Your task to perform on an android device: find snoozed emails in the gmail app Image 0: 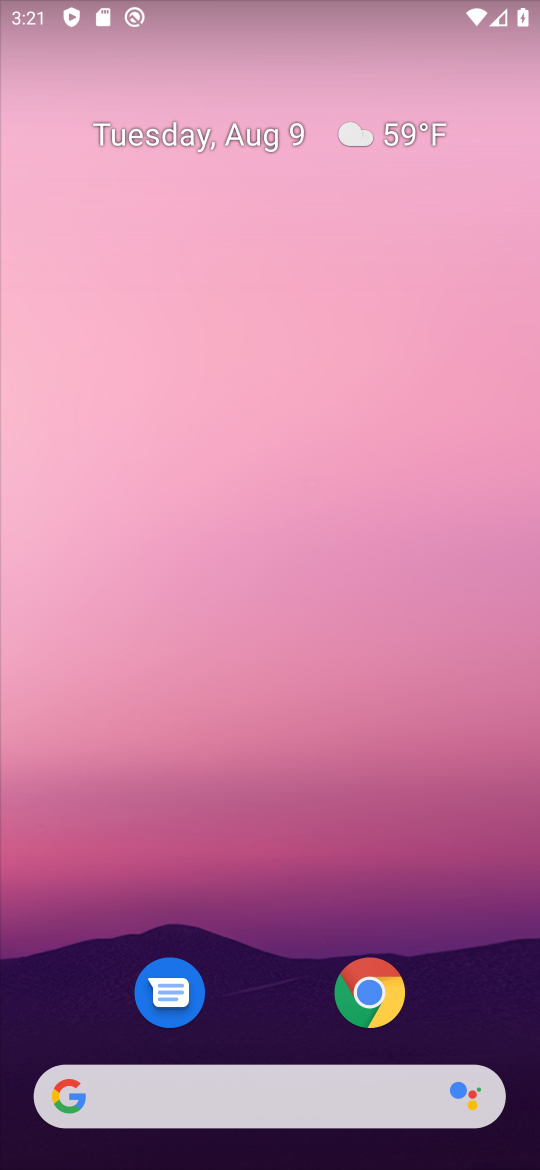
Step 0: drag from (318, 801) to (394, 398)
Your task to perform on an android device: find snoozed emails in the gmail app Image 1: 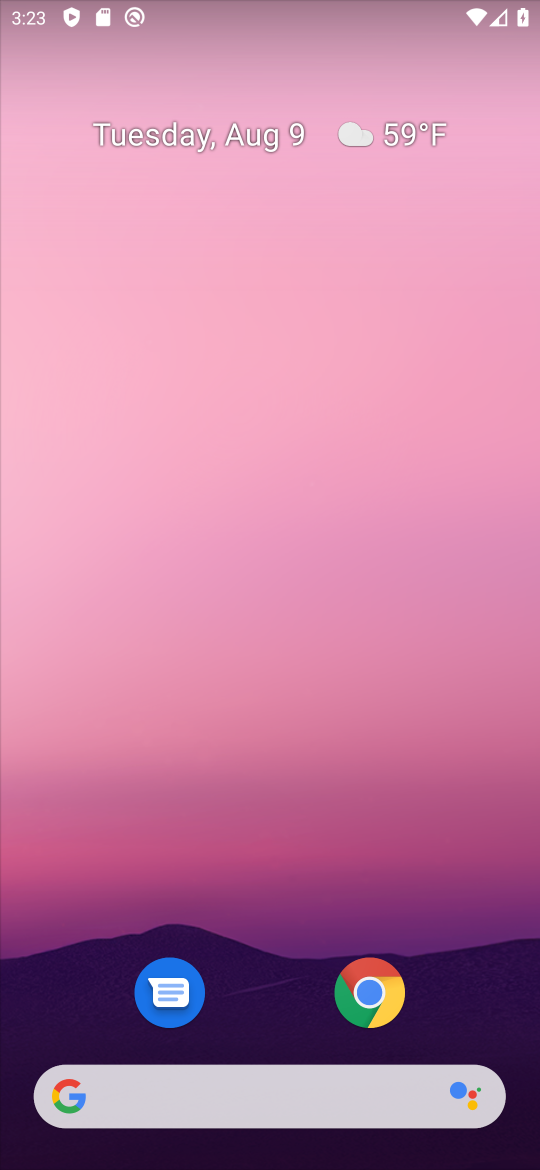
Step 1: drag from (211, 1047) to (358, 171)
Your task to perform on an android device: find snoozed emails in the gmail app Image 2: 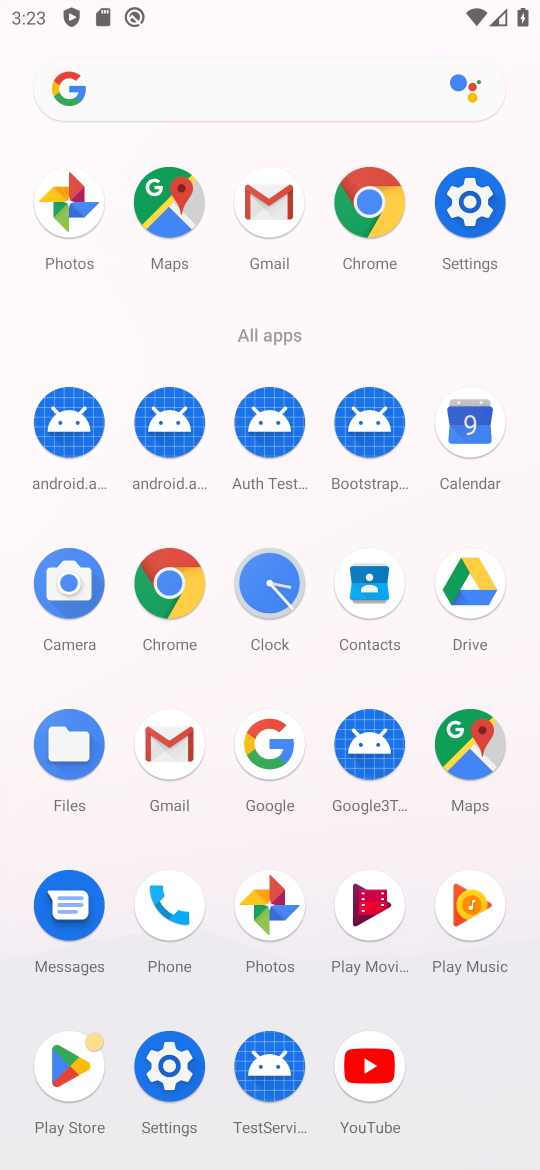
Step 2: click (263, 204)
Your task to perform on an android device: find snoozed emails in the gmail app Image 3: 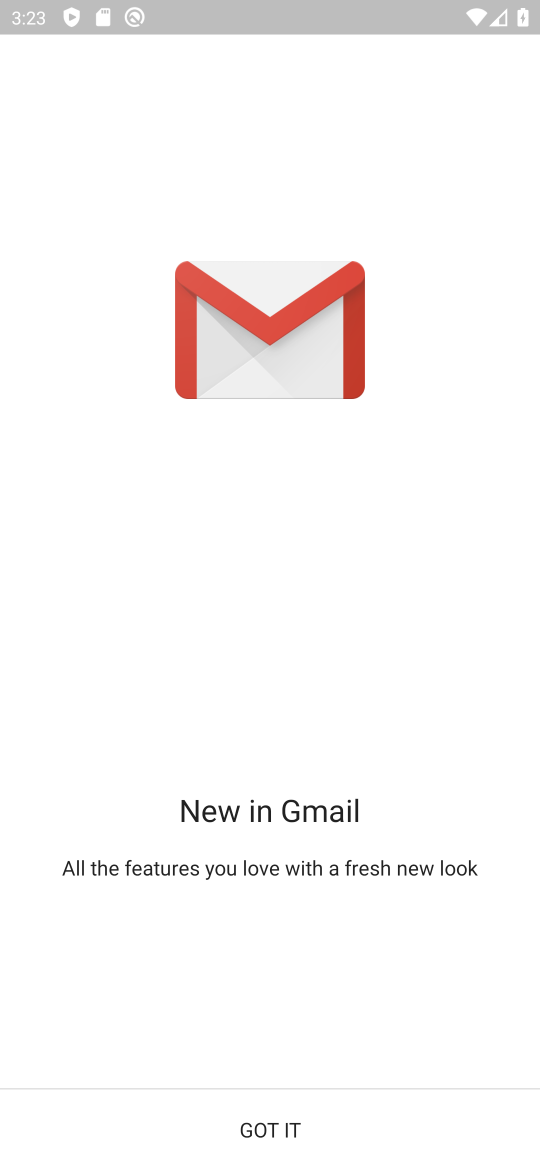
Step 3: click (227, 1130)
Your task to perform on an android device: find snoozed emails in the gmail app Image 4: 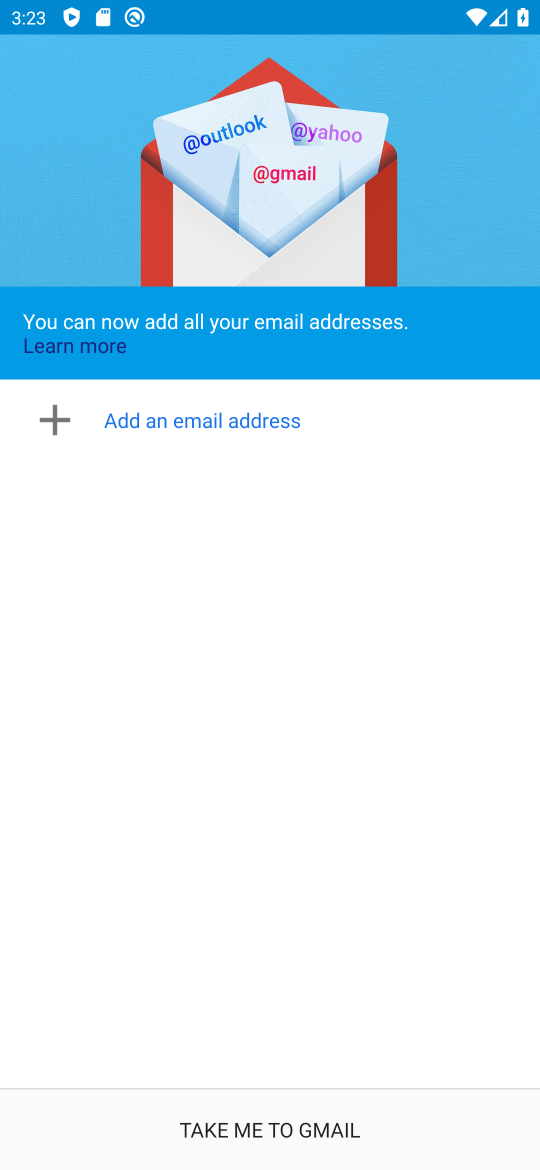
Step 4: task complete